Your task to perform on an android device: Open battery settings Image 0: 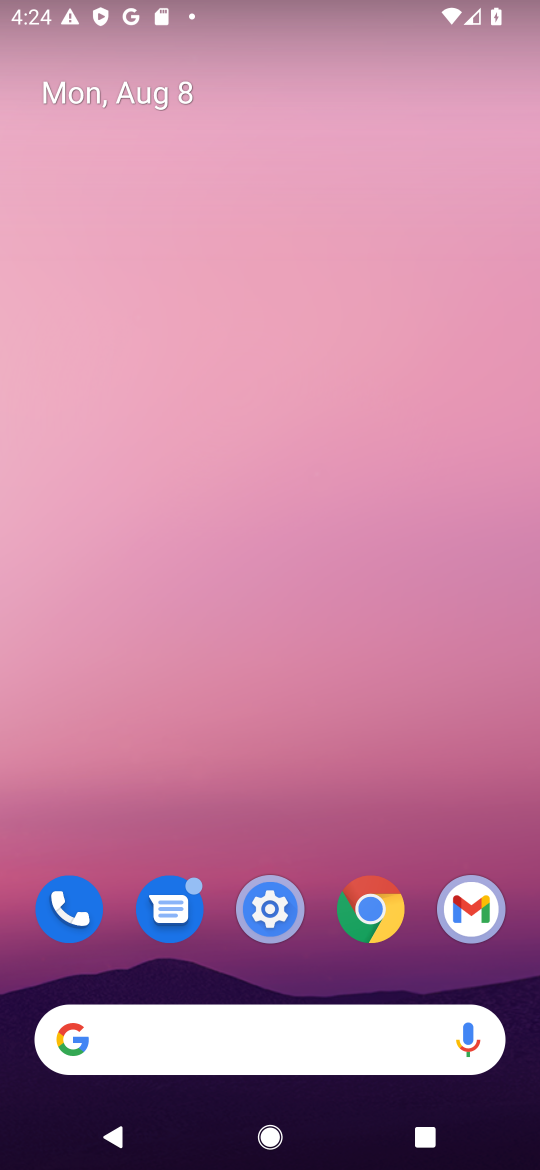
Step 0: press home button
Your task to perform on an android device: Open battery settings Image 1: 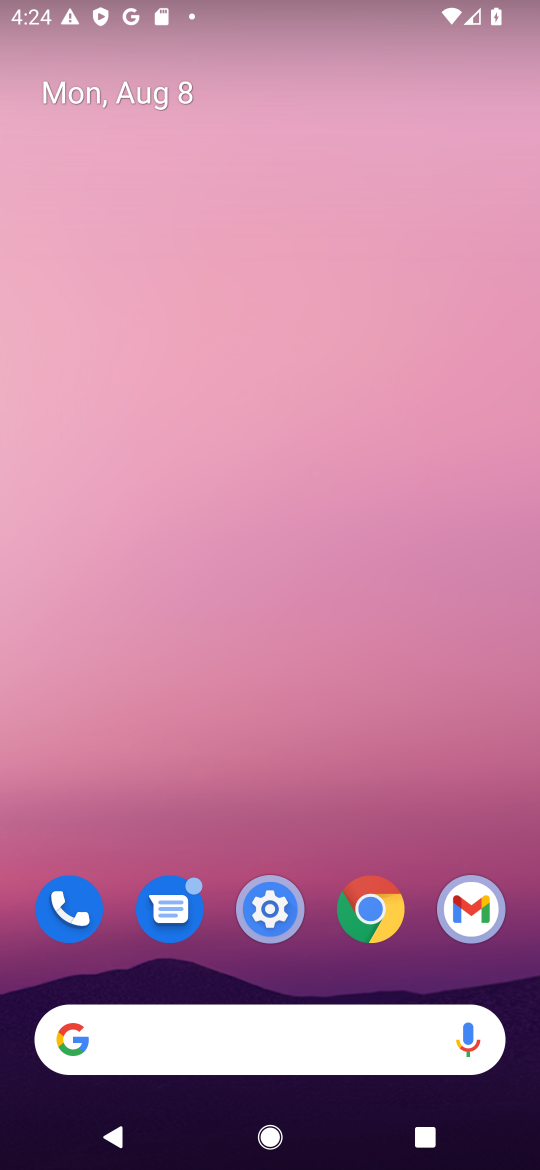
Step 1: click (262, 900)
Your task to perform on an android device: Open battery settings Image 2: 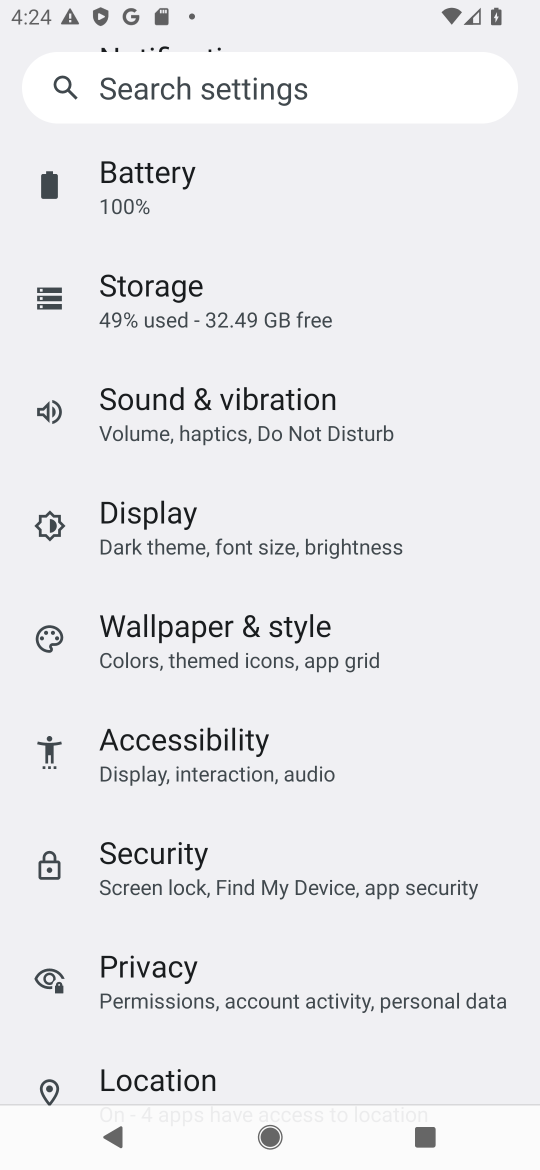
Step 2: click (162, 194)
Your task to perform on an android device: Open battery settings Image 3: 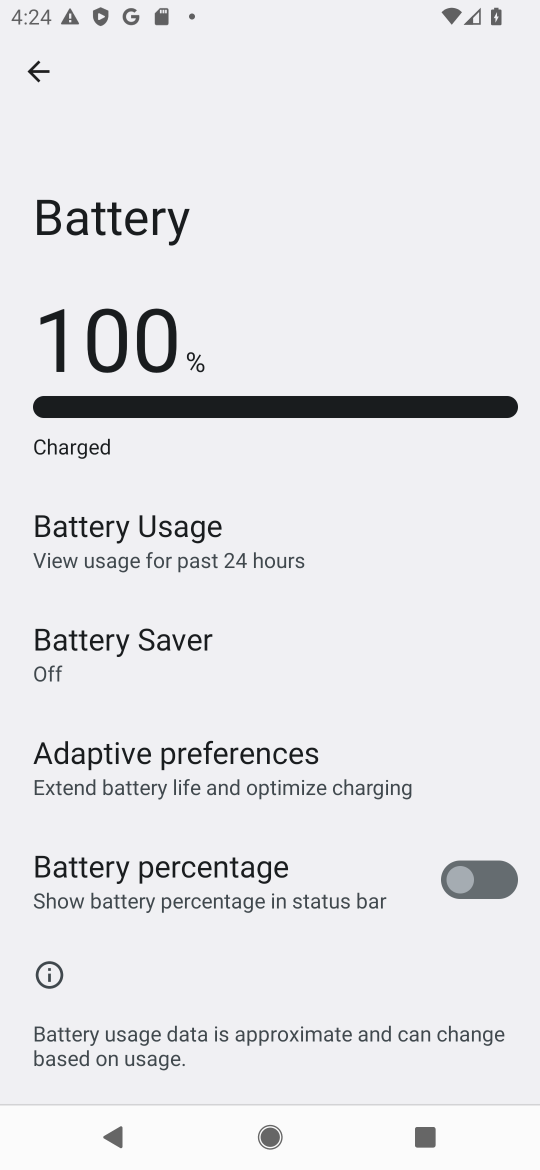
Step 3: task complete